Your task to perform on an android device: change keyboard looks Image 0: 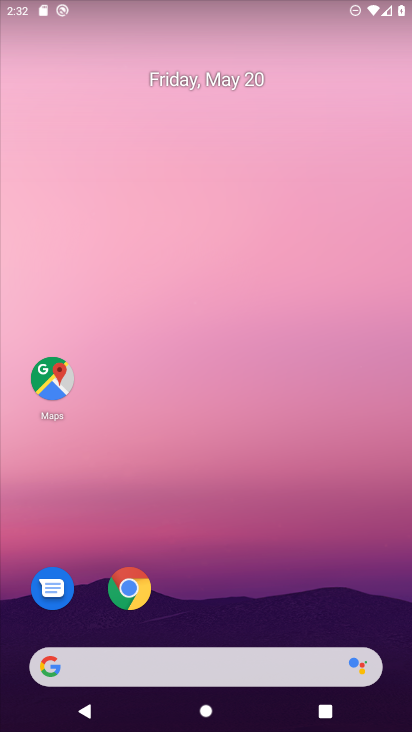
Step 0: drag from (389, 622) to (321, 43)
Your task to perform on an android device: change keyboard looks Image 1: 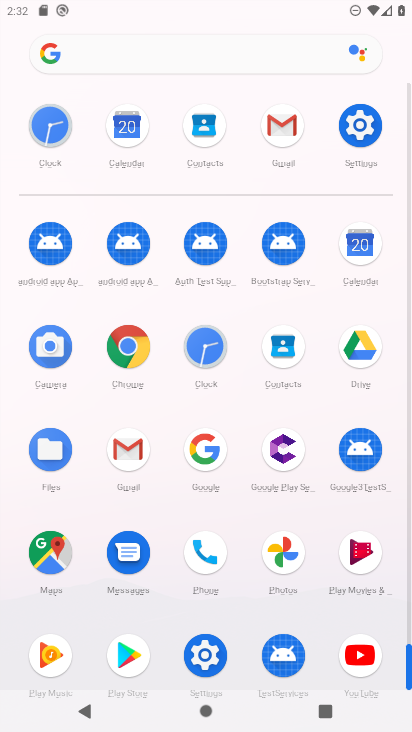
Step 1: click (207, 654)
Your task to perform on an android device: change keyboard looks Image 2: 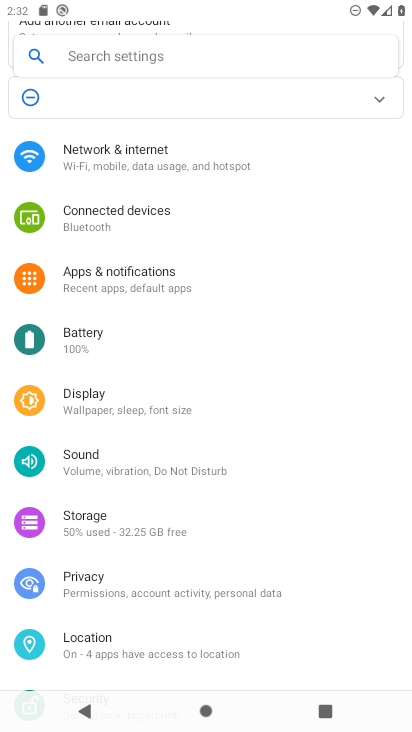
Step 2: drag from (320, 635) to (340, 145)
Your task to perform on an android device: change keyboard looks Image 3: 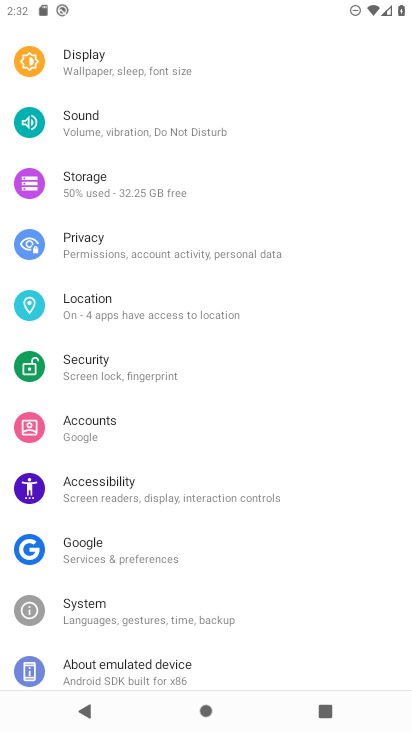
Step 3: drag from (301, 611) to (318, 318)
Your task to perform on an android device: change keyboard looks Image 4: 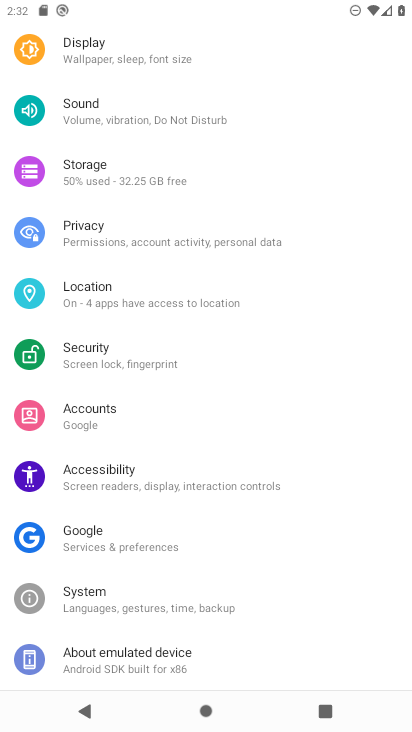
Step 4: click (77, 598)
Your task to perform on an android device: change keyboard looks Image 5: 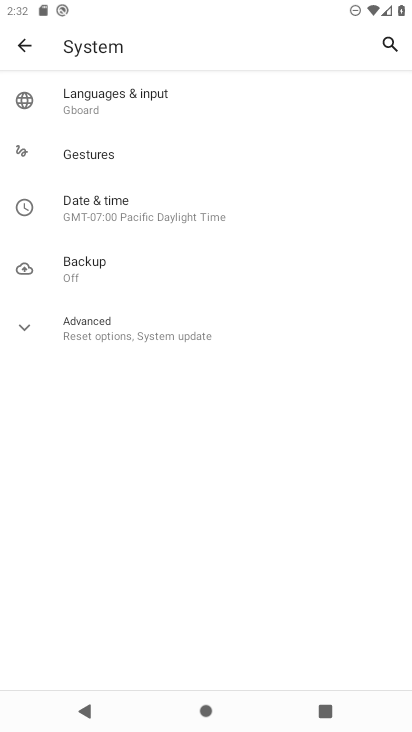
Step 5: click (27, 327)
Your task to perform on an android device: change keyboard looks Image 6: 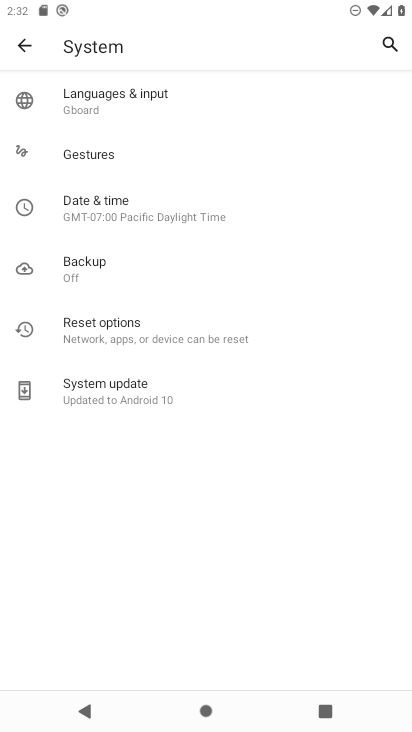
Step 6: click (107, 94)
Your task to perform on an android device: change keyboard looks Image 7: 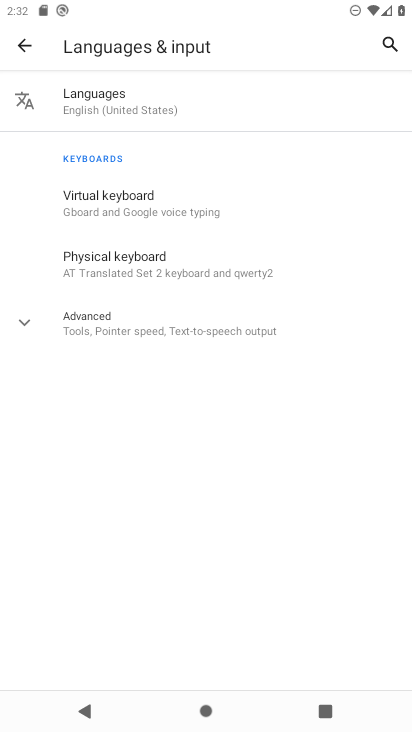
Step 7: click (101, 265)
Your task to perform on an android device: change keyboard looks Image 8: 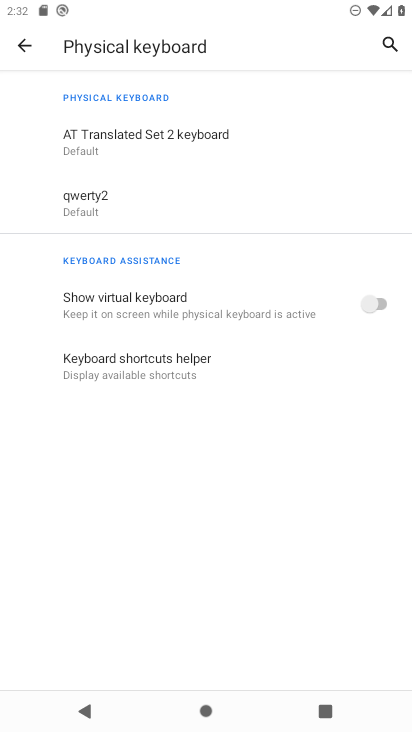
Step 8: click (90, 195)
Your task to perform on an android device: change keyboard looks Image 9: 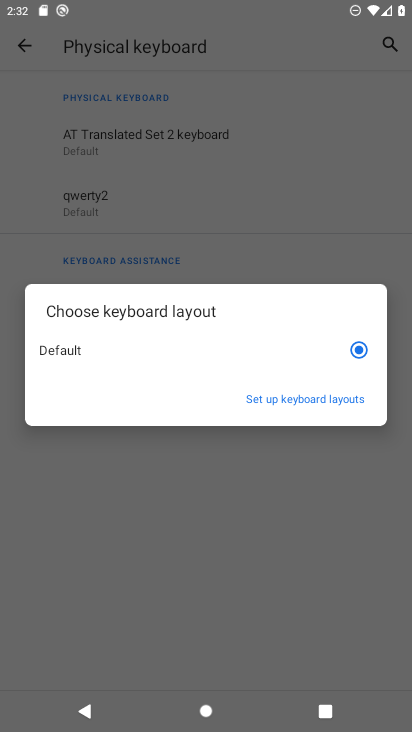
Step 9: click (309, 398)
Your task to perform on an android device: change keyboard looks Image 10: 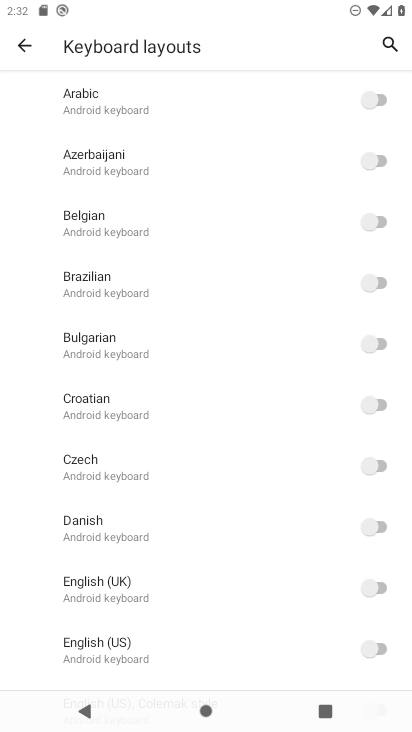
Step 10: click (382, 583)
Your task to perform on an android device: change keyboard looks Image 11: 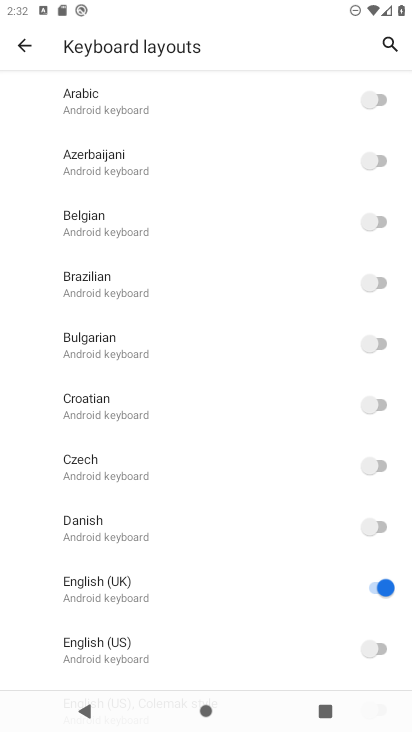
Step 11: task complete